Your task to perform on an android device: allow notifications from all sites in the chrome app Image 0: 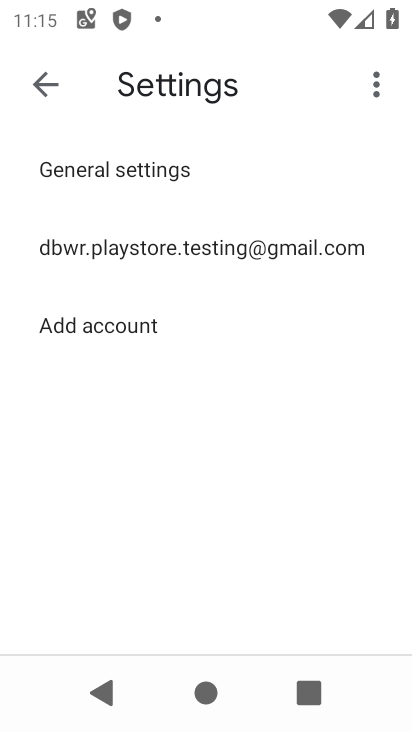
Step 0: press home button
Your task to perform on an android device: allow notifications from all sites in the chrome app Image 1: 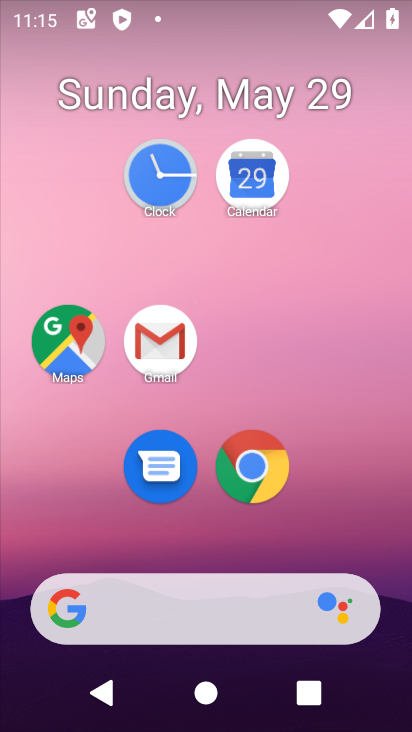
Step 1: click (264, 484)
Your task to perform on an android device: allow notifications from all sites in the chrome app Image 2: 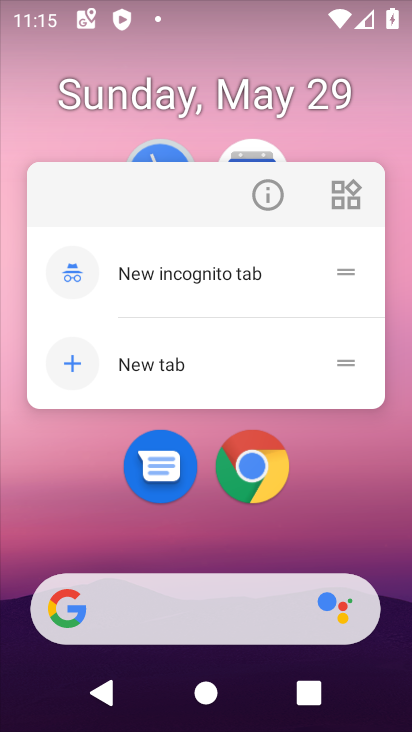
Step 2: click (241, 494)
Your task to perform on an android device: allow notifications from all sites in the chrome app Image 3: 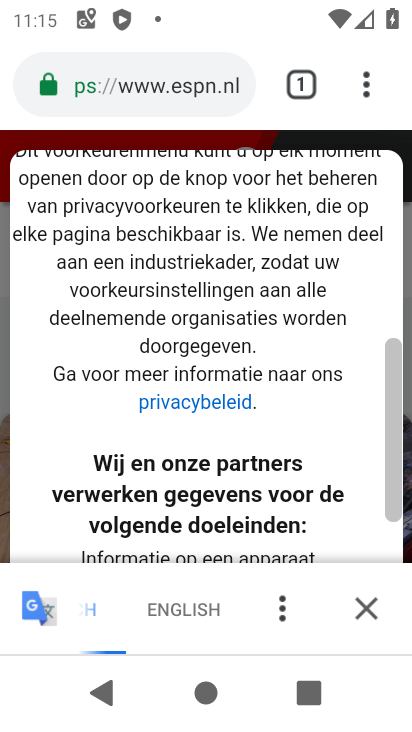
Step 3: click (368, 83)
Your task to perform on an android device: allow notifications from all sites in the chrome app Image 4: 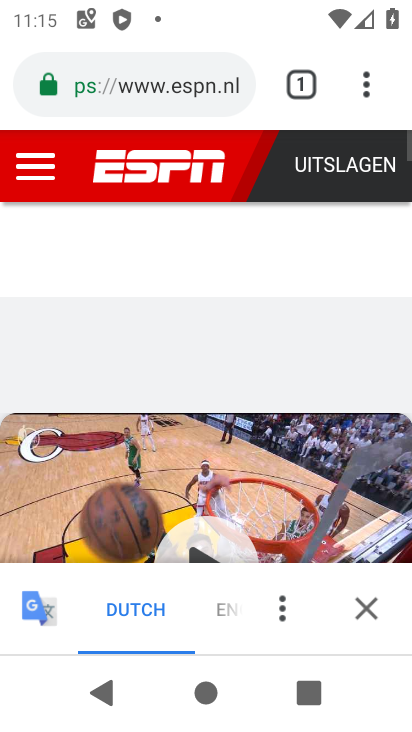
Step 4: click (378, 83)
Your task to perform on an android device: allow notifications from all sites in the chrome app Image 5: 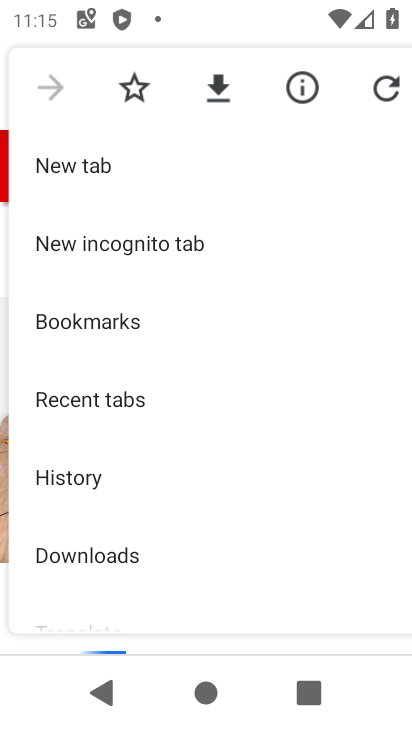
Step 5: drag from (262, 483) to (261, 98)
Your task to perform on an android device: allow notifications from all sites in the chrome app Image 6: 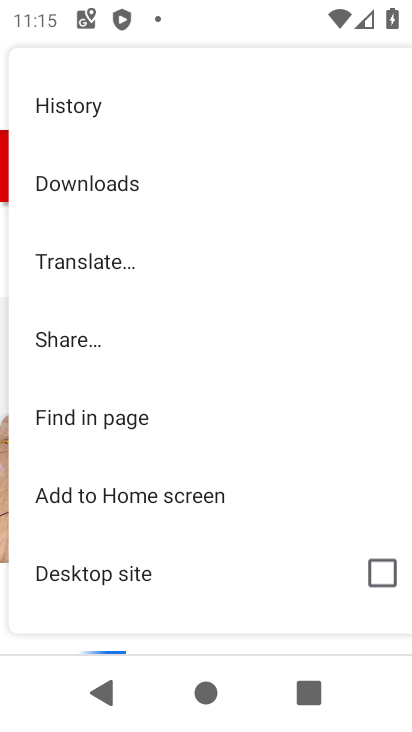
Step 6: drag from (160, 539) to (207, 162)
Your task to perform on an android device: allow notifications from all sites in the chrome app Image 7: 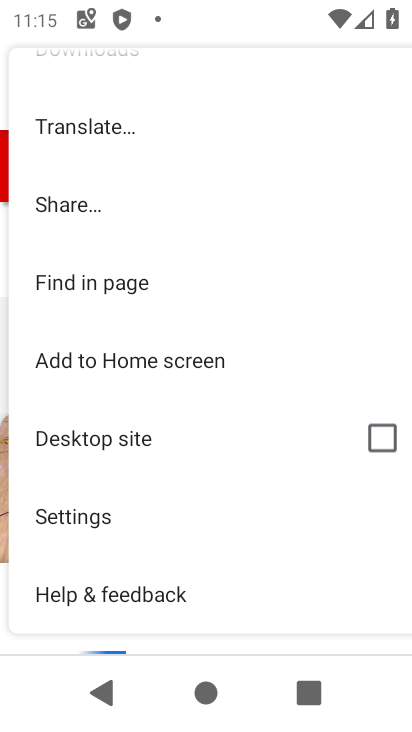
Step 7: click (148, 498)
Your task to perform on an android device: allow notifications from all sites in the chrome app Image 8: 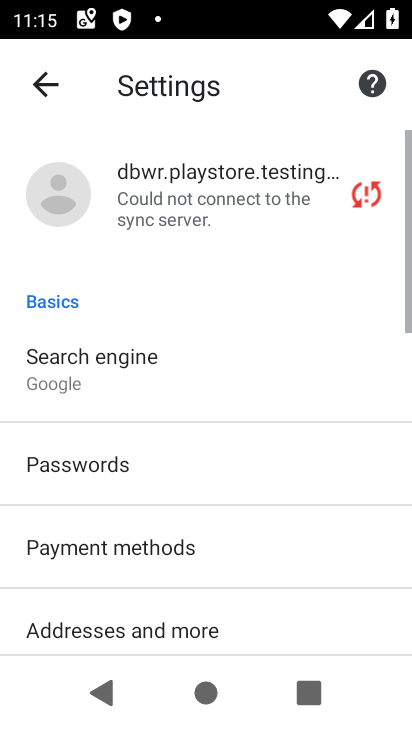
Step 8: drag from (149, 449) to (146, 99)
Your task to perform on an android device: allow notifications from all sites in the chrome app Image 9: 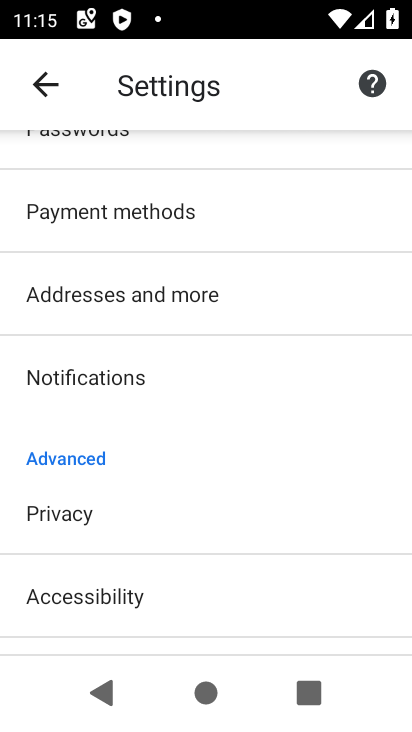
Step 9: drag from (203, 591) to (219, 162)
Your task to perform on an android device: allow notifications from all sites in the chrome app Image 10: 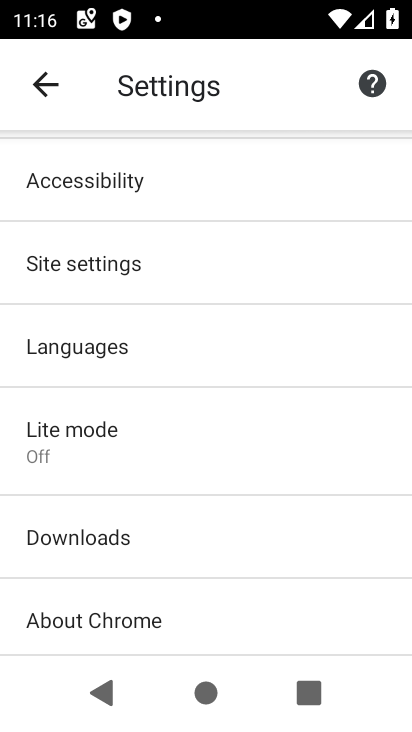
Step 10: drag from (210, 535) to (255, 159)
Your task to perform on an android device: allow notifications from all sites in the chrome app Image 11: 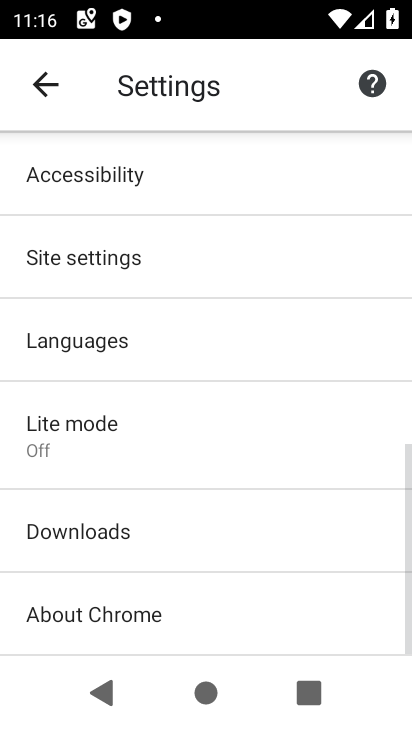
Step 11: click (244, 242)
Your task to perform on an android device: allow notifications from all sites in the chrome app Image 12: 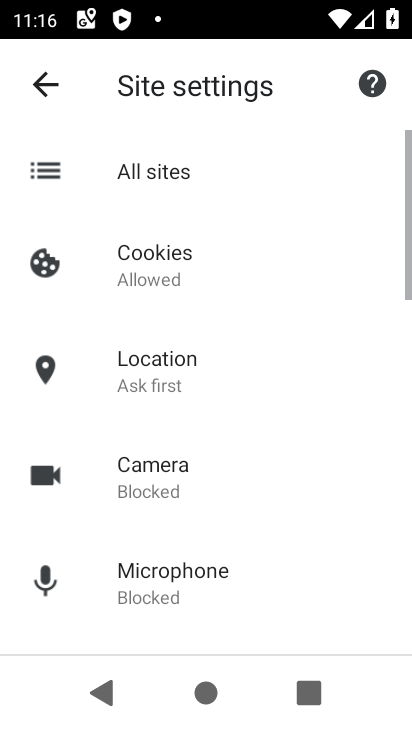
Step 12: click (277, 262)
Your task to perform on an android device: allow notifications from all sites in the chrome app Image 13: 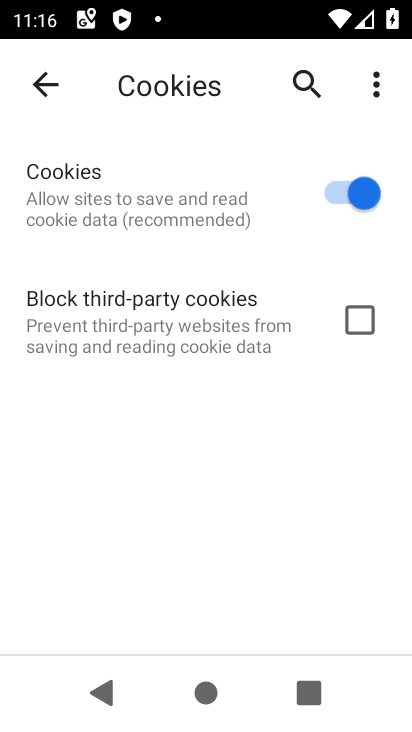
Step 13: task complete